Your task to perform on an android device: toggle show notifications on the lock screen Image 0: 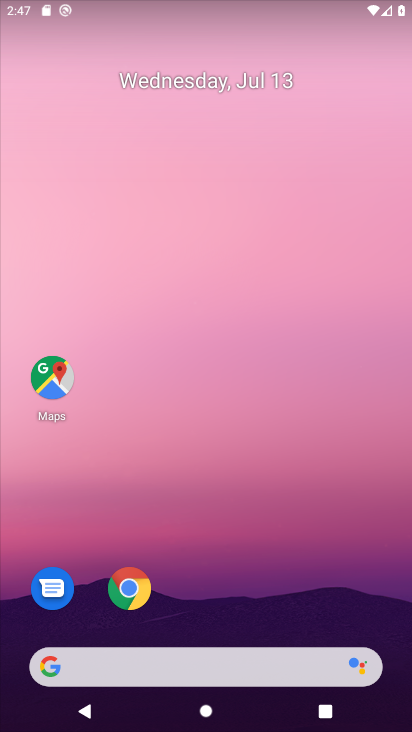
Step 0: drag from (226, 635) to (330, 4)
Your task to perform on an android device: toggle show notifications on the lock screen Image 1: 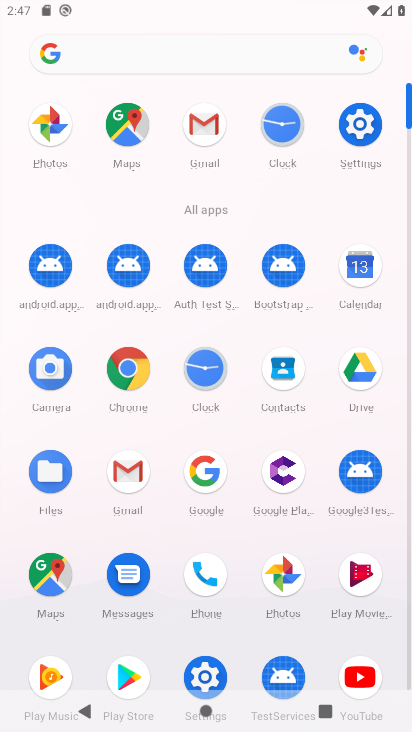
Step 1: click (360, 136)
Your task to perform on an android device: toggle show notifications on the lock screen Image 2: 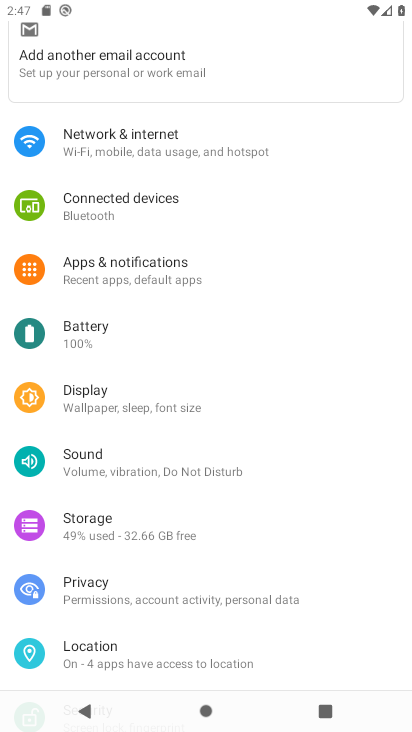
Step 2: click (118, 276)
Your task to perform on an android device: toggle show notifications on the lock screen Image 3: 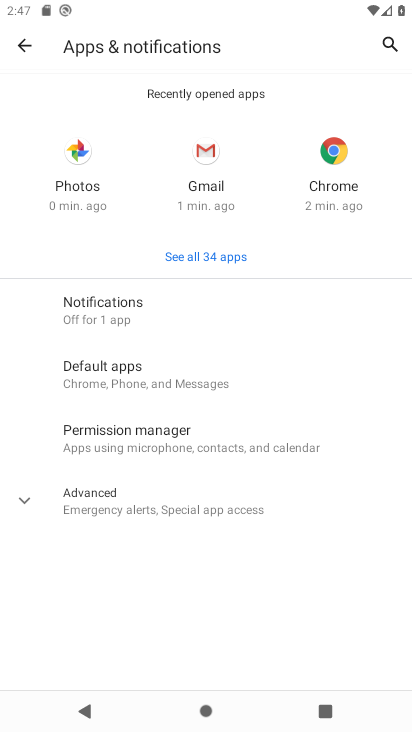
Step 3: click (149, 508)
Your task to perform on an android device: toggle show notifications on the lock screen Image 4: 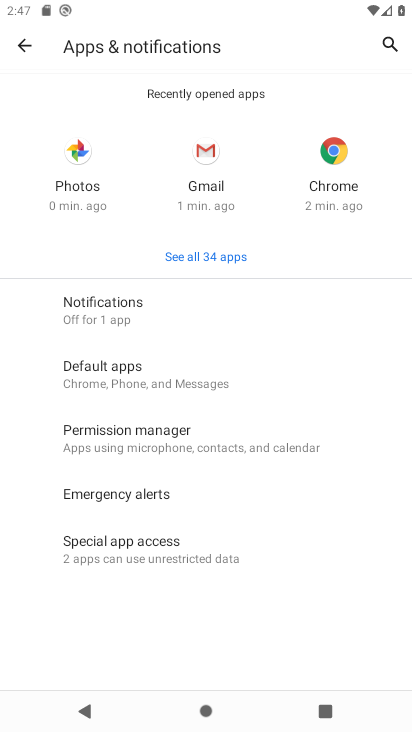
Step 4: click (116, 311)
Your task to perform on an android device: toggle show notifications on the lock screen Image 5: 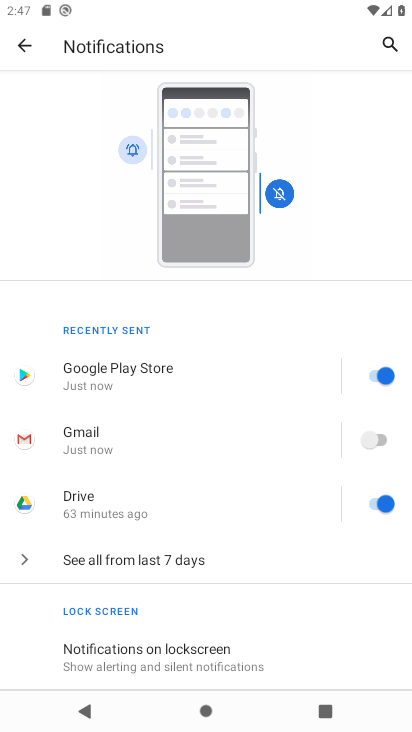
Step 5: click (220, 653)
Your task to perform on an android device: toggle show notifications on the lock screen Image 6: 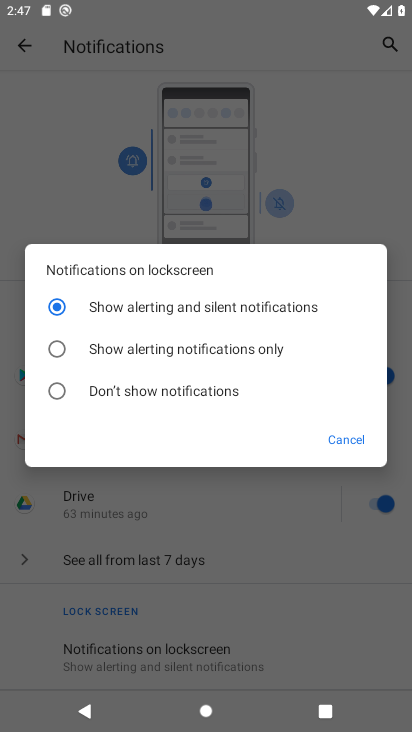
Step 6: click (73, 354)
Your task to perform on an android device: toggle show notifications on the lock screen Image 7: 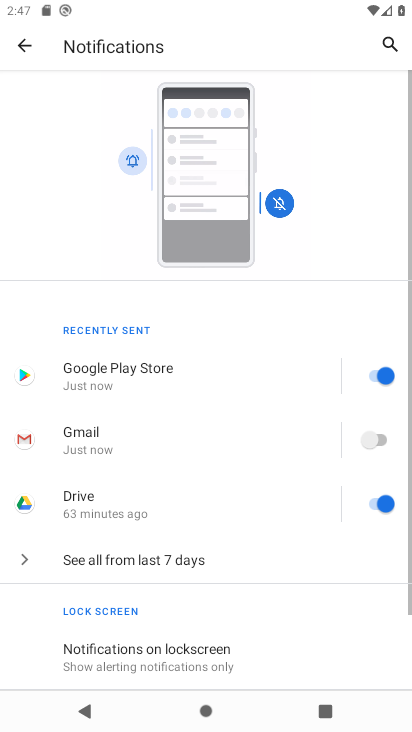
Step 7: task complete